Your task to perform on an android device: set default search engine in the chrome app Image 0: 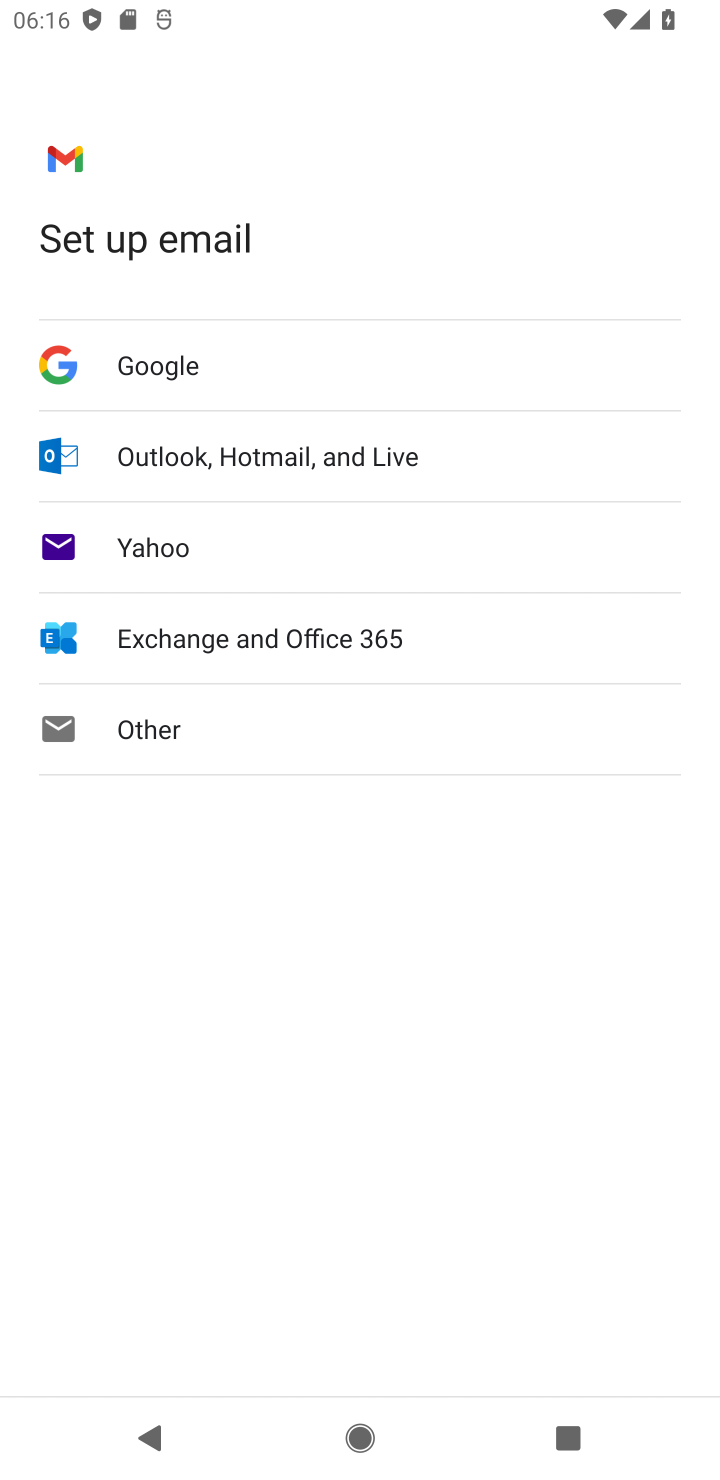
Step 0: press home button
Your task to perform on an android device: set default search engine in the chrome app Image 1: 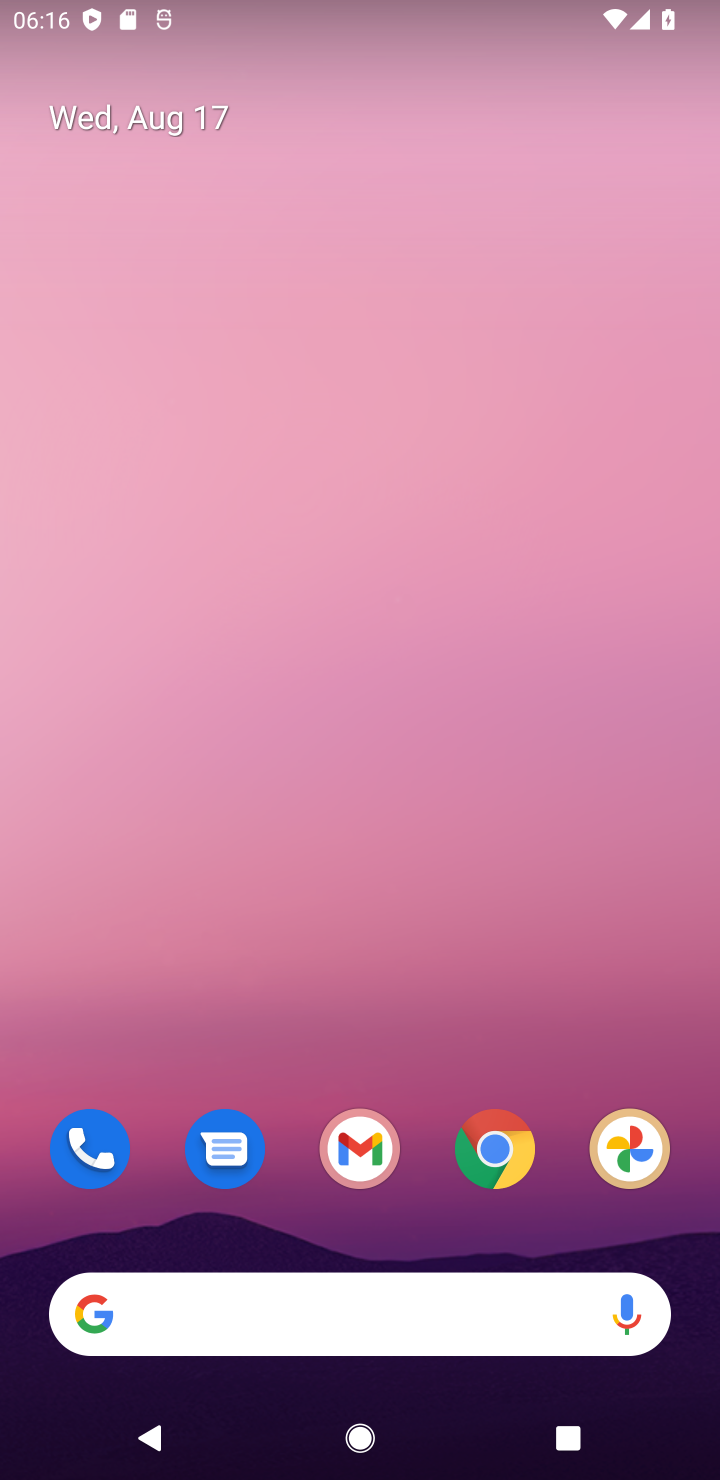
Step 1: click (493, 1160)
Your task to perform on an android device: set default search engine in the chrome app Image 2: 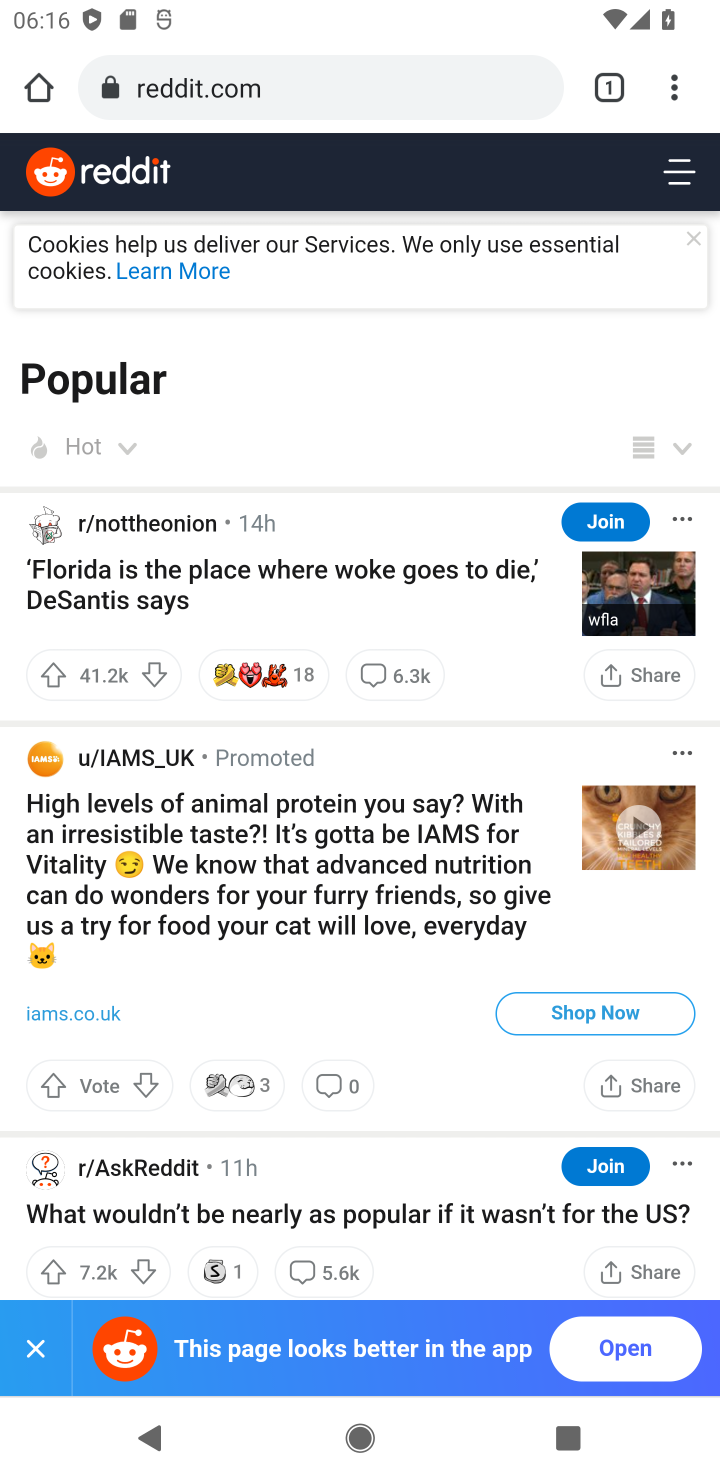
Step 2: click (677, 88)
Your task to perform on an android device: set default search engine in the chrome app Image 3: 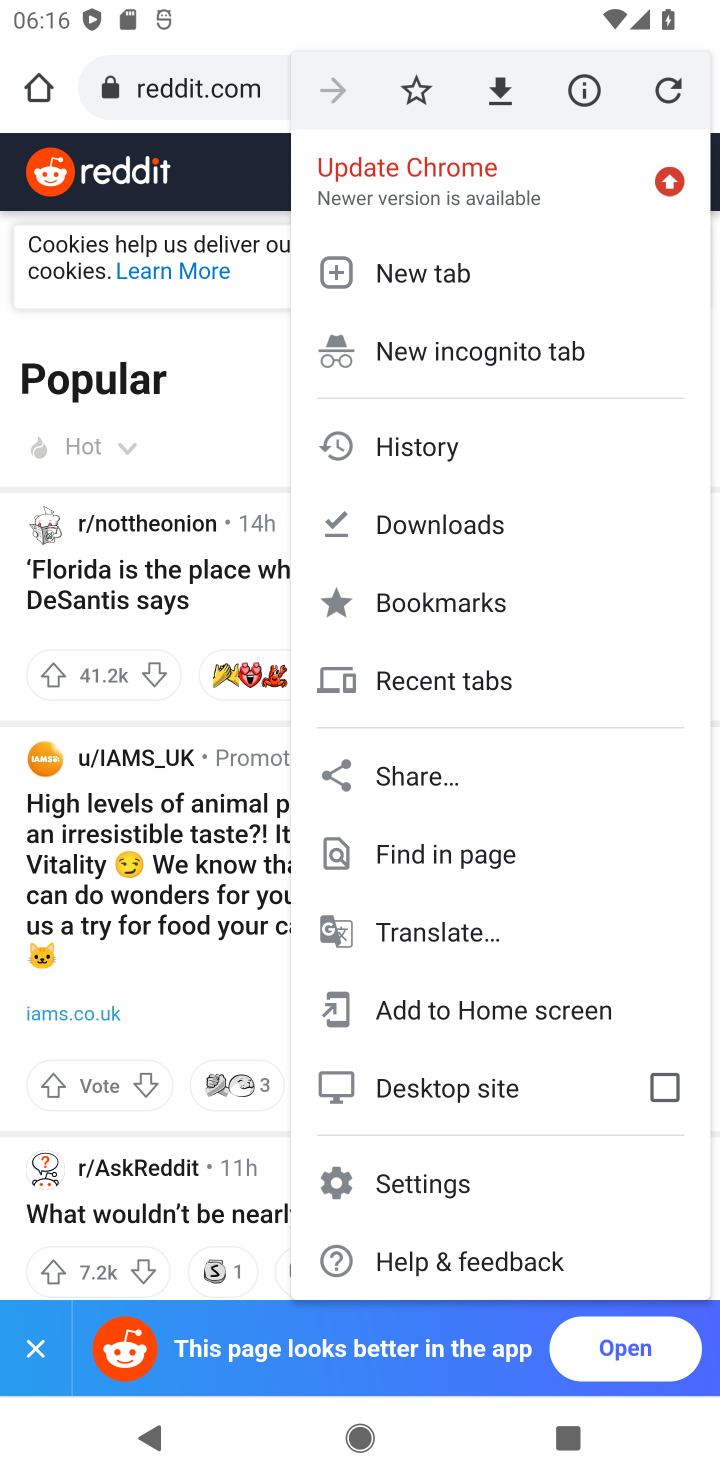
Step 3: click (407, 1171)
Your task to perform on an android device: set default search engine in the chrome app Image 4: 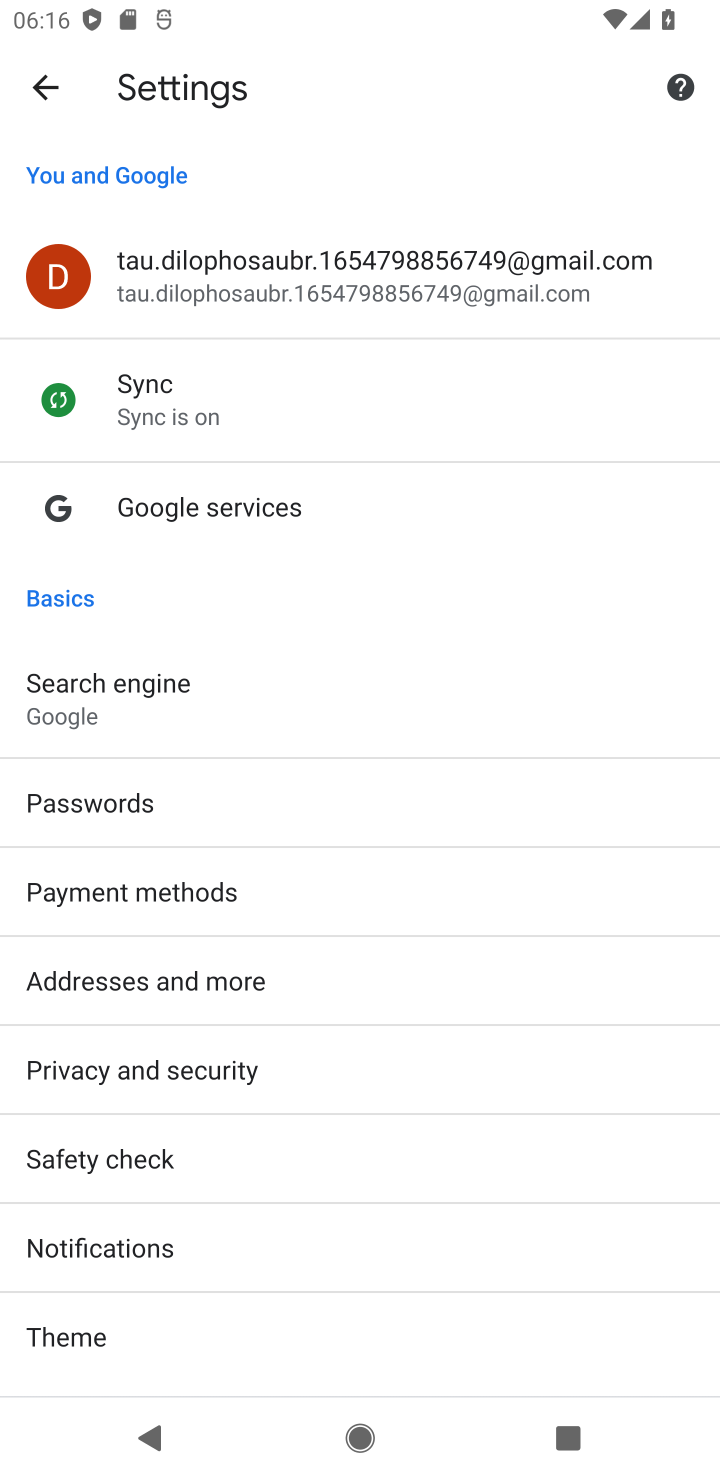
Step 4: click (61, 678)
Your task to perform on an android device: set default search engine in the chrome app Image 5: 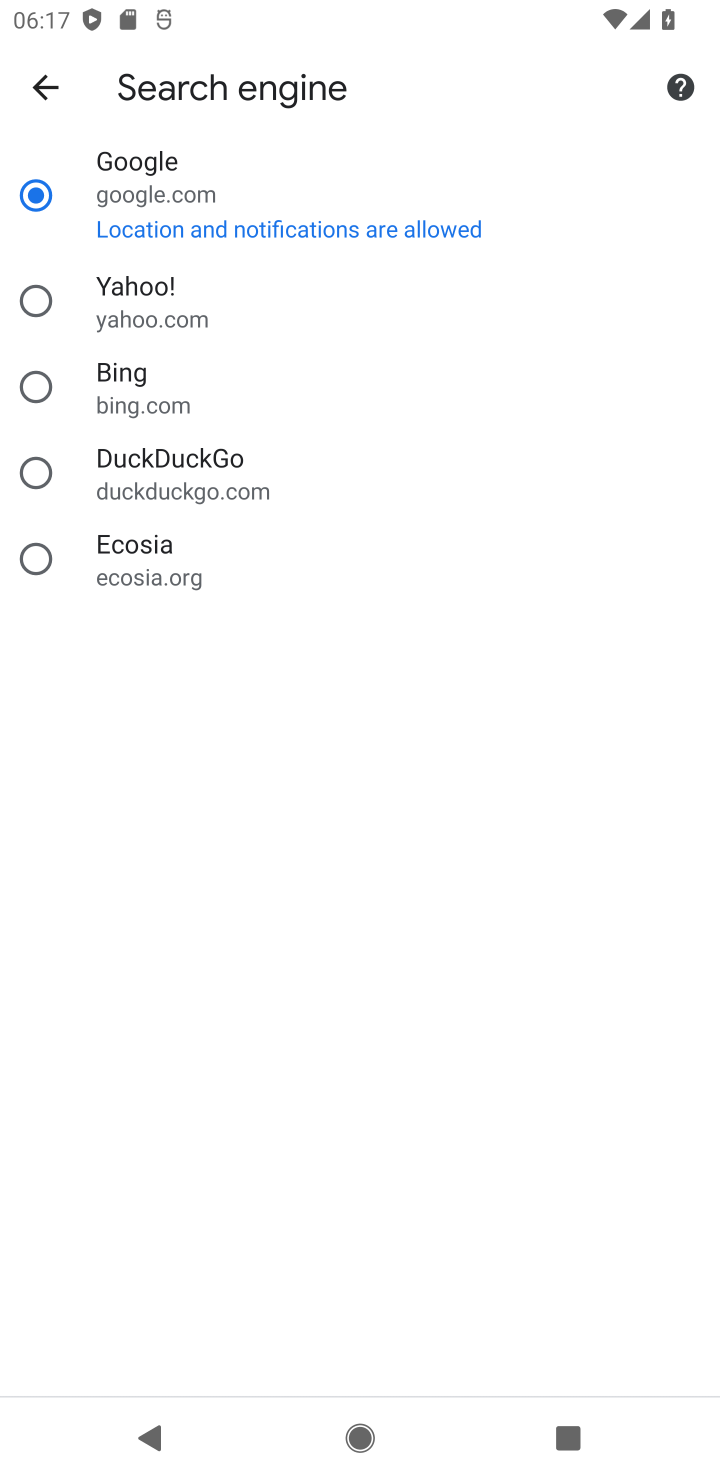
Step 5: task complete